Your task to perform on an android device: Open Reddit.com Image 0: 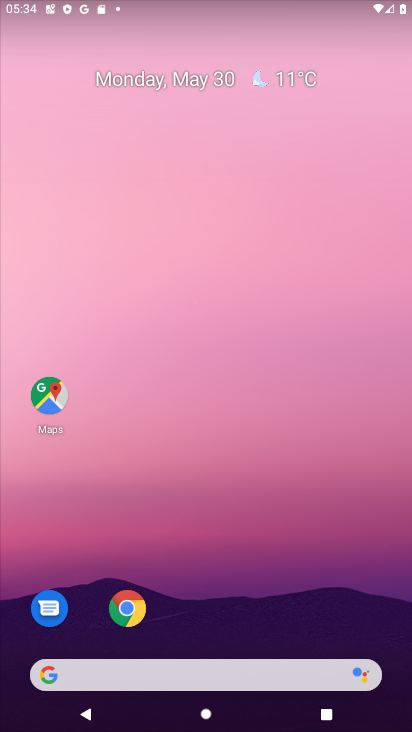
Step 0: drag from (182, 652) to (182, 302)
Your task to perform on an android device: Open Reddit.com Image 1: 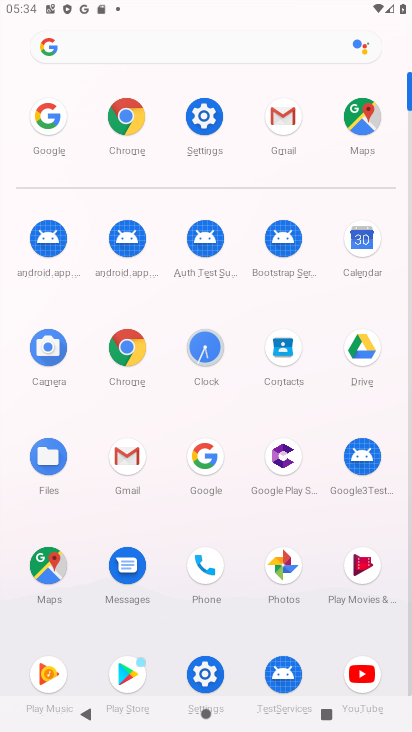
Step 1: click (46, 105)
Your task to perform on an android device: Open Reddit.com Image 2: 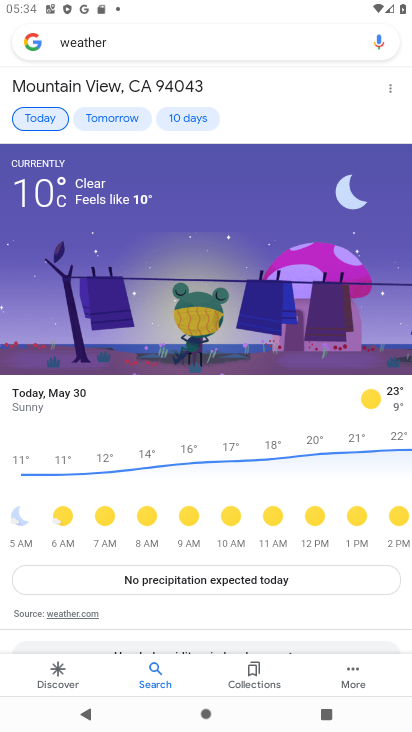
Step 2: click (258, 40)
Your task to perform on an android device: Open Reddit.com Image 3: 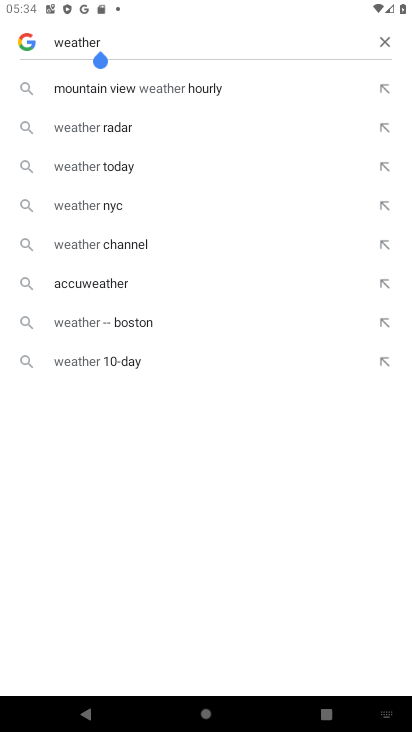
Step 3: click (377, 39)
Your task to perform on an android device: Open Reddit.com Image 4: 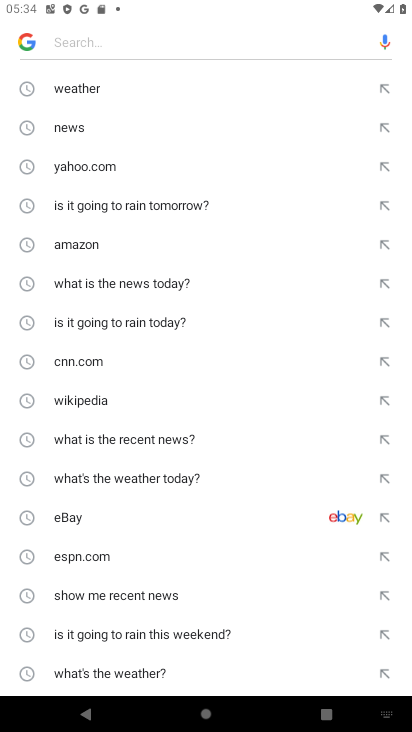
Step 4: drag from (97, 634) to (135, 216)
Your task to perform on an android device: Open Reddit.com Image 5: 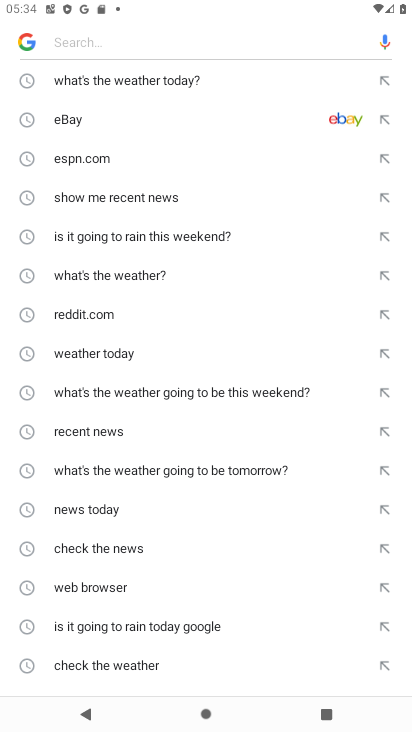
Step 5: click (70, 316)
Your task to perform on an android device: Open Reddit.com Image 6: 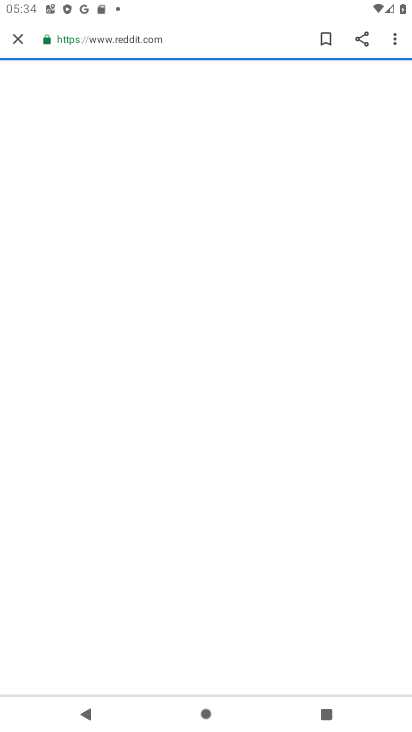
Step 6: task complete